Your task to perform on an android device: Check the weather Image 0: 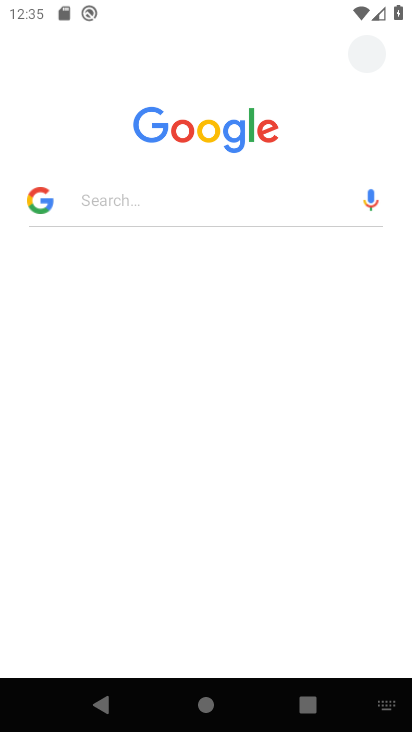
Step 0: press home button
Your task to perform on an android device: Check the weather Image 1: 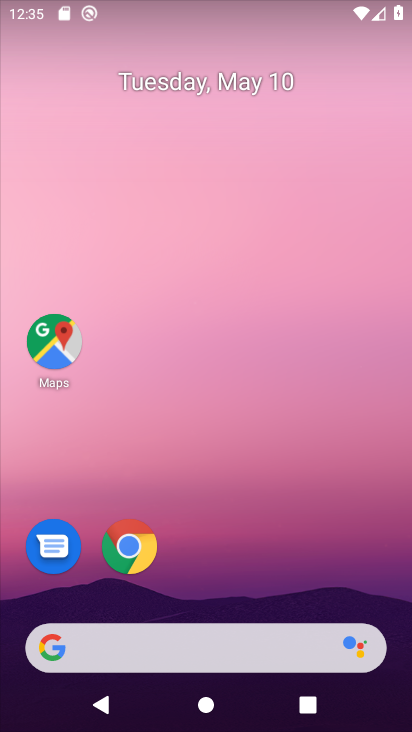
Step 1: click (133, 541)
Your task to perform on an android device: Check the weather Image 2: 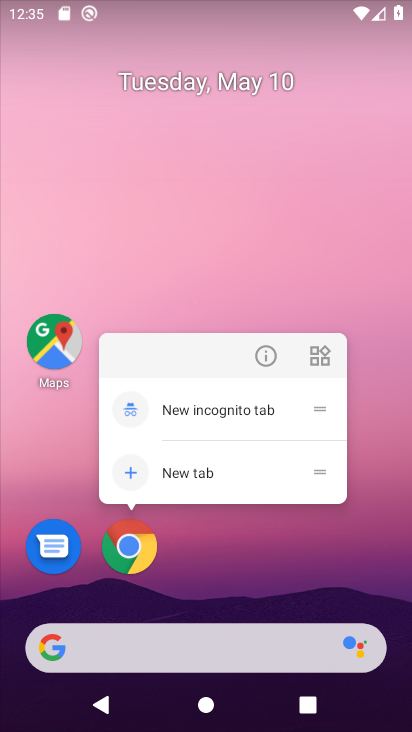
Step 2: click (133, 541)
Your task to perform on an android device: Check the weather Image 3: 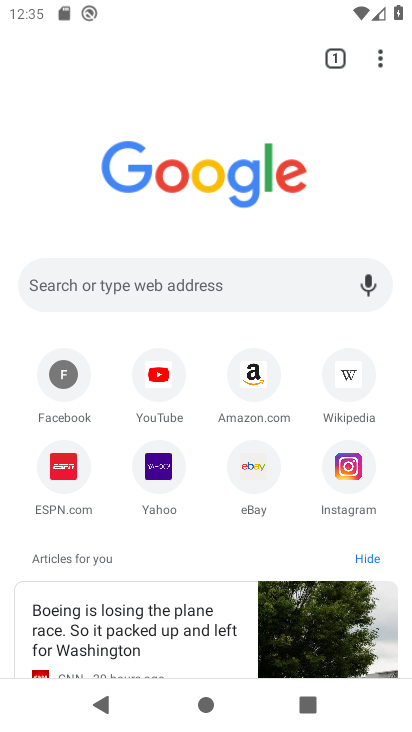
Step 3: click (132, 282)
Your task to perform on an android device: Check the weather Image 4: 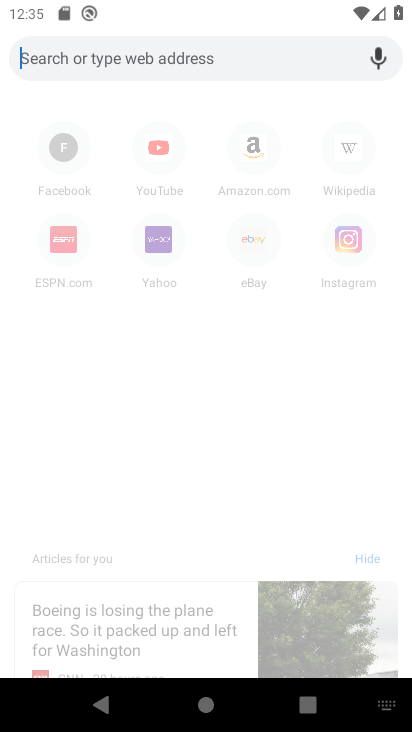
Step 4: type "weather"
Your task to perform on an android device: Check the weather Image 5: 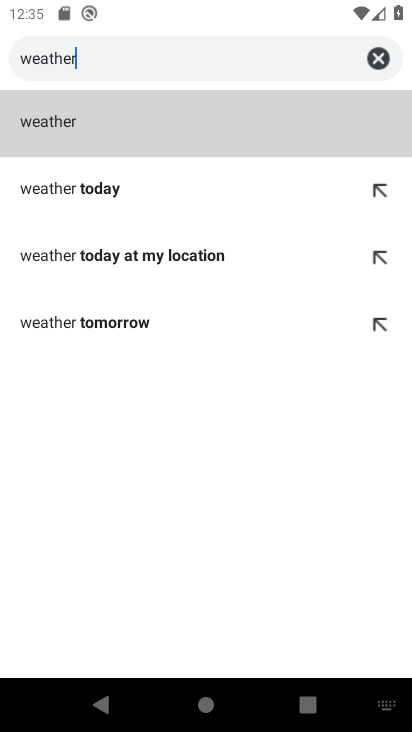
Step 5: click (87, 122)
Your task to perform on an android device: Check the weather Image 6: 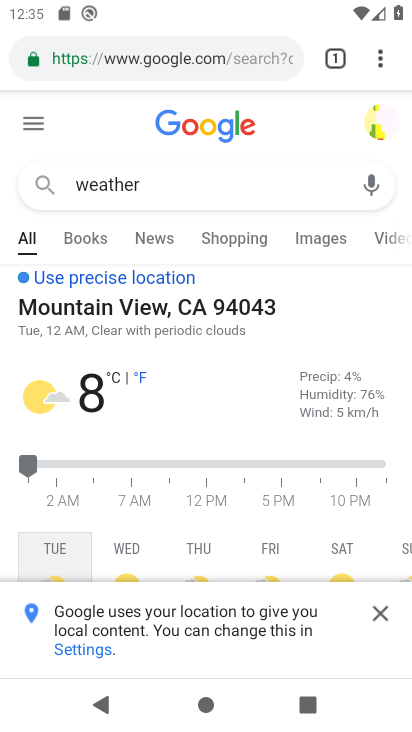
Step 6: task complete